Your task to perform on an android device: allow cookies in the chrome app Image 0: 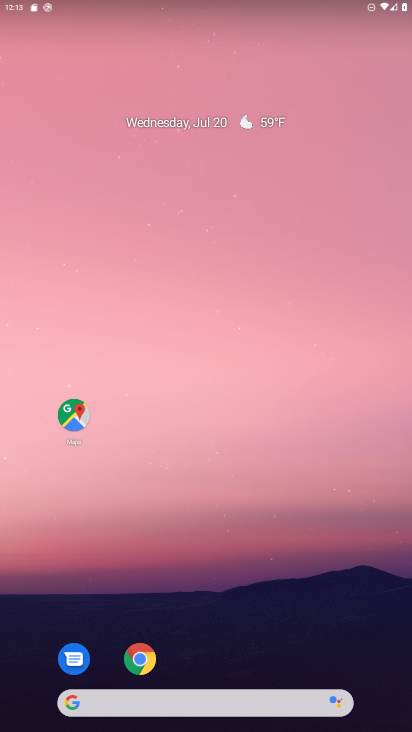
Step 0: drag from (253, 465) to (330, 123)
Your task to perform on an android device: allow cookies in the chrome app Image 1: 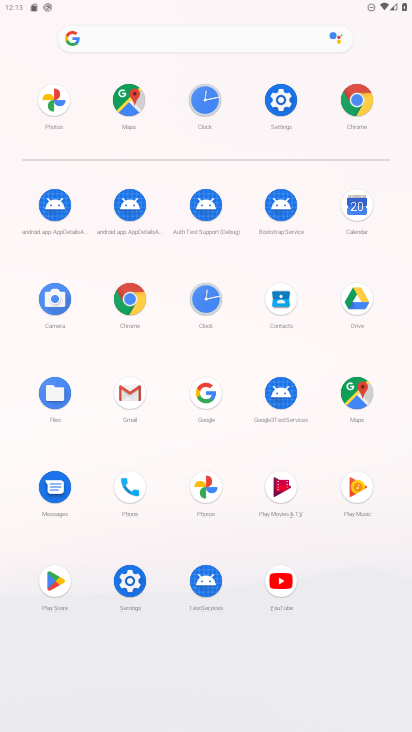
Step 1: click (123, 297)
Your task to perform on an android device: allow cookies in the chrome app Image 2: 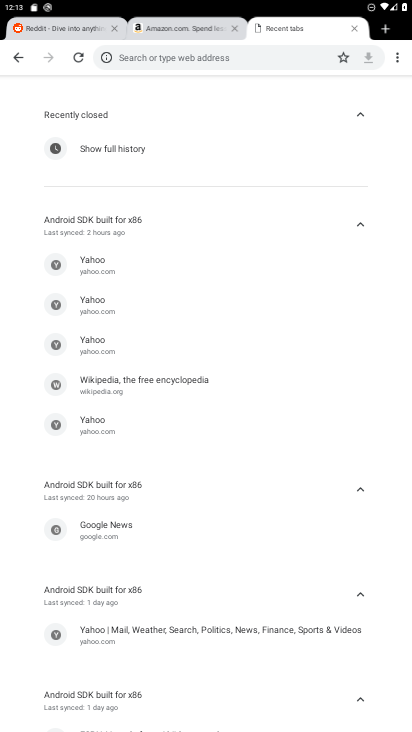
Step 2: drag from (398, 61) to (291, 292)
Your task to perform on an android device: allow cookies in the chrome app Image 3: 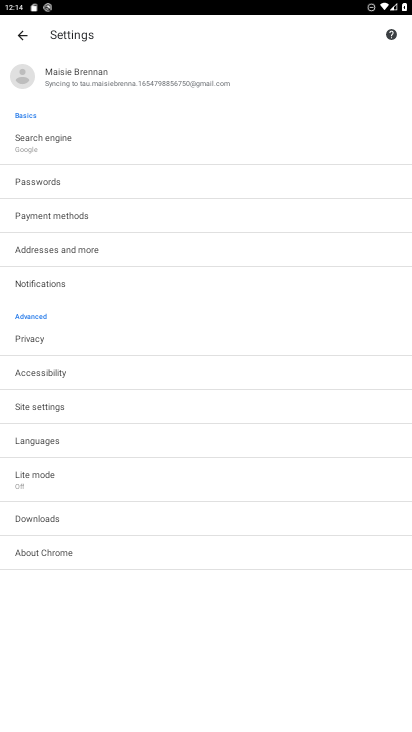
Step 3: click (48, 412)
Your task to perform on an android device: allow cookies in the chrome app Image 4: 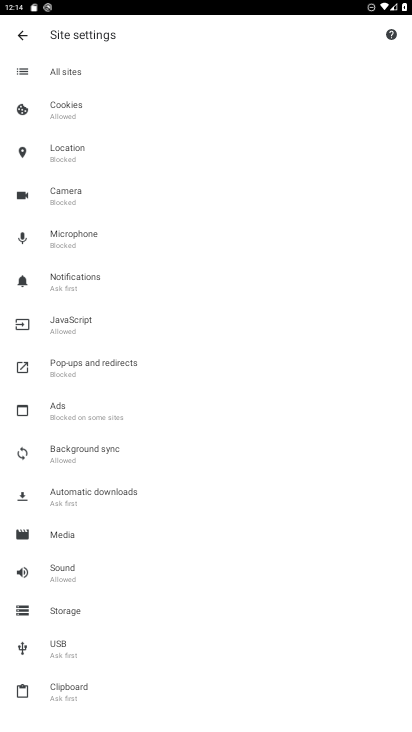
Step 4: click (74, 104)
Your task to perform on an android device: allow cookies in the chrome app Image 5: 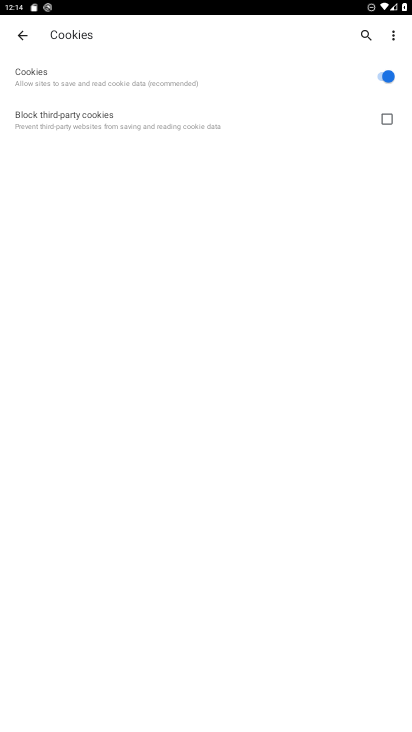
Step 5: task complete